Your task to perform on an android device: star an email in the gmail app Image 0: 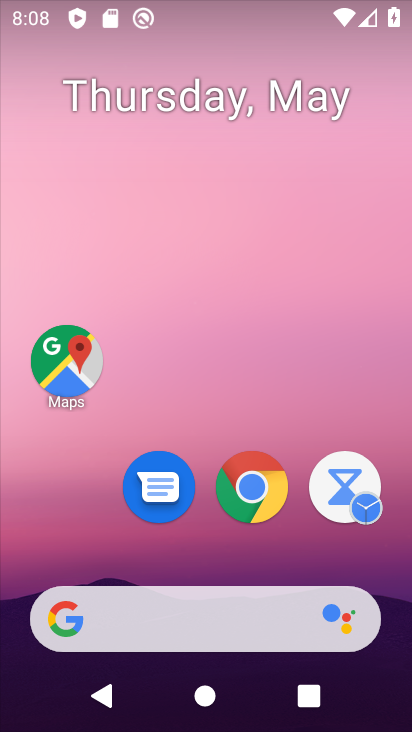
Step 0: drag from (393, 574) to (392, 220)
Your task to perform on an android device: star an email in the gmail app Image 1: 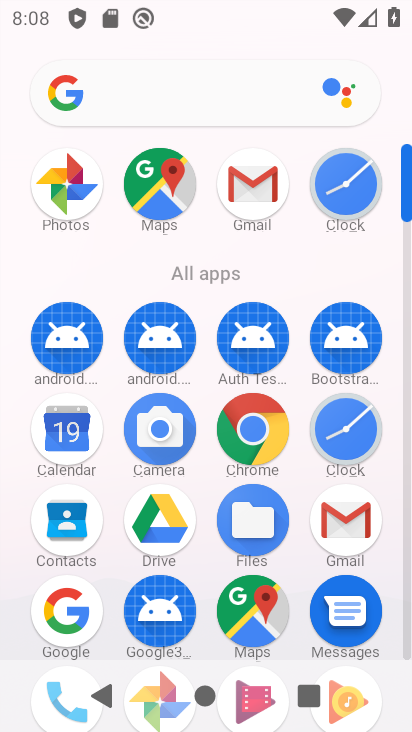
Step 1: click (352, 529)
Your task to perform on an android device: star an email in the gmail app Image 2: 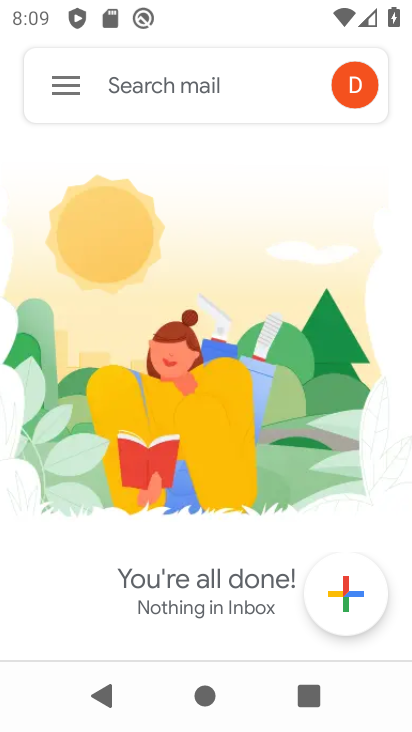
Step 2: click (69, 82)
Your task to perform on an android device: star an email in the gmail app Image 3: 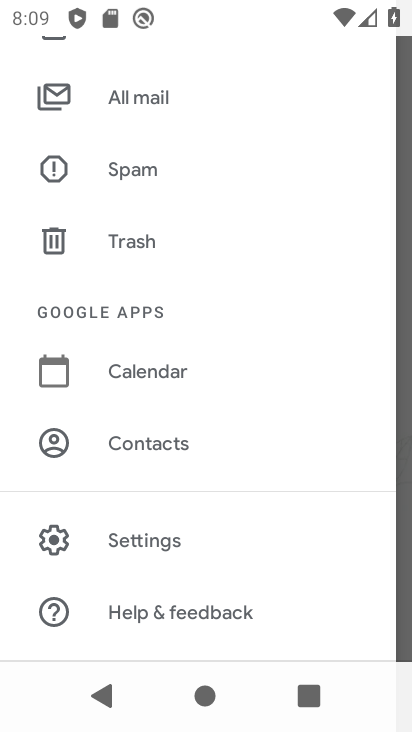
Step 3: drag from (322, 399) to (322, 495)
Your task to perform on an android device: star an email in the gmail app Image 4: 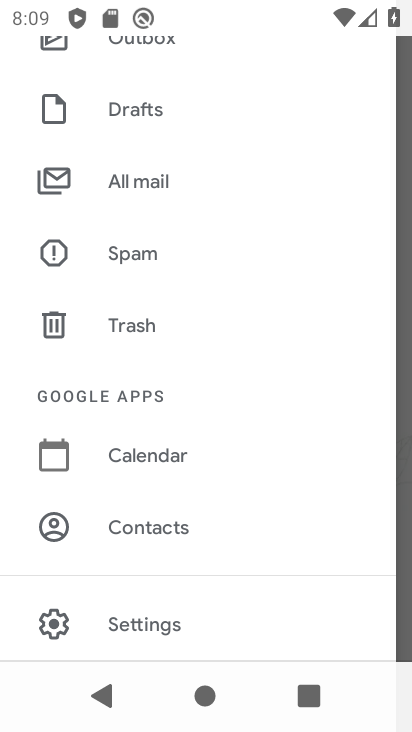
Step 4: drag from (311, 346) to (311, 462)
Your task to perform on an android device: star an email in the gmail app Image 5: 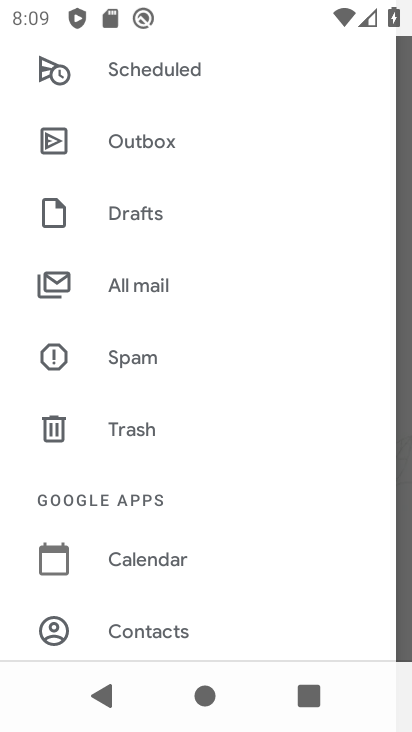
Step 5: drag from (323, 301) to (320, 424)
Your task to perform on an android device: star an email in the gmail app Image 6: 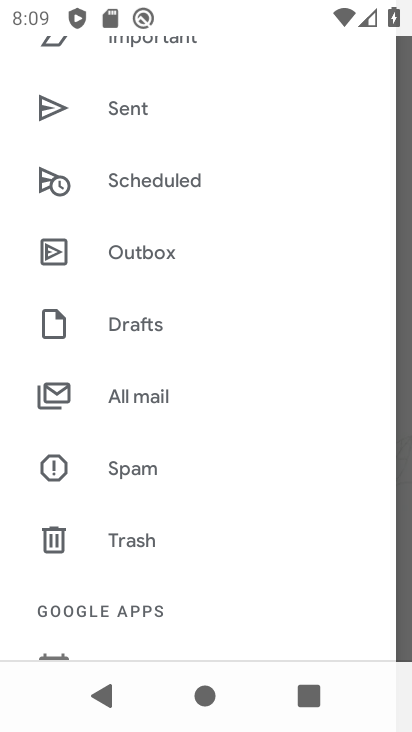
Step 6: drag from (307, 302) to (312, 431)
Your task to perform on an android device: star an email in the gmail app Image 7: 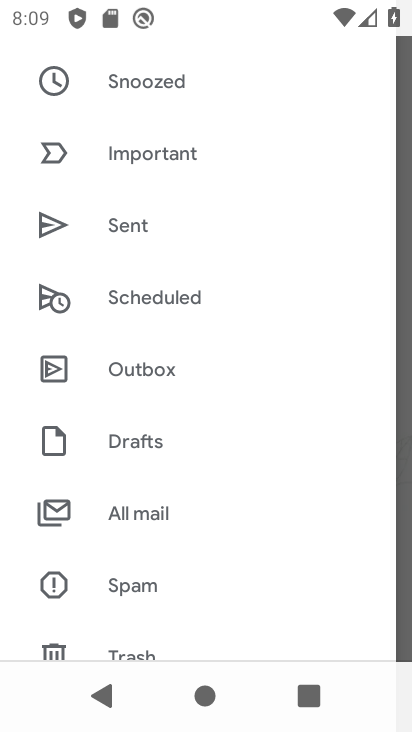
Step 7: drag from (309, 341) to (311, 409)
Your task to perform on an android device: star an email in the gmail app Image 8: 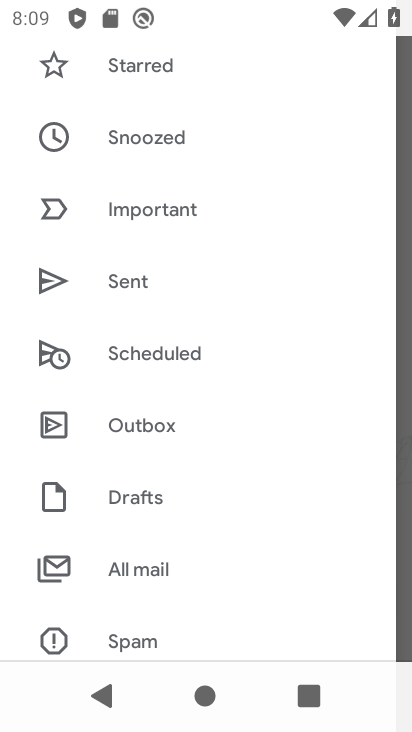
Step 8: drag from (309, 270) to (302, 418)
Your task to perform on an android device: star an email in the gmail app Image 9: 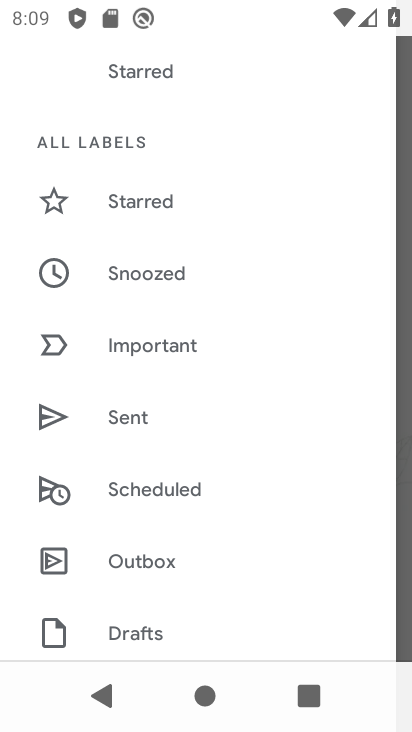
Step 9: drag from (284, 286) to (290, 384)
Your task to perform on an android device: star an email in the gmail app Image 10: 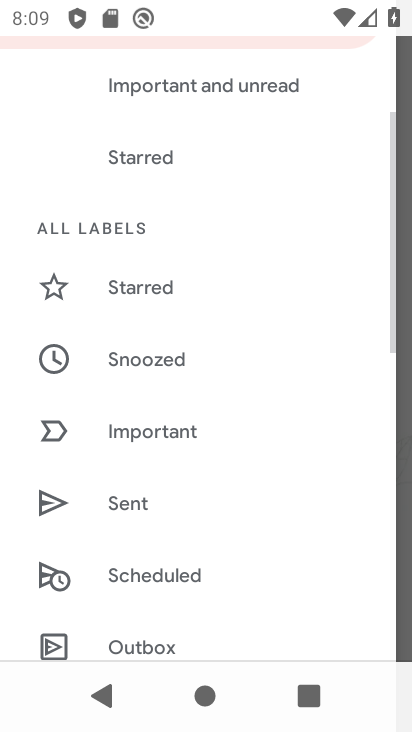
Step 10: drag from (287, 232) to (295, 331)
Your task to perform on an android device: star an email in the gmail app Image 11: 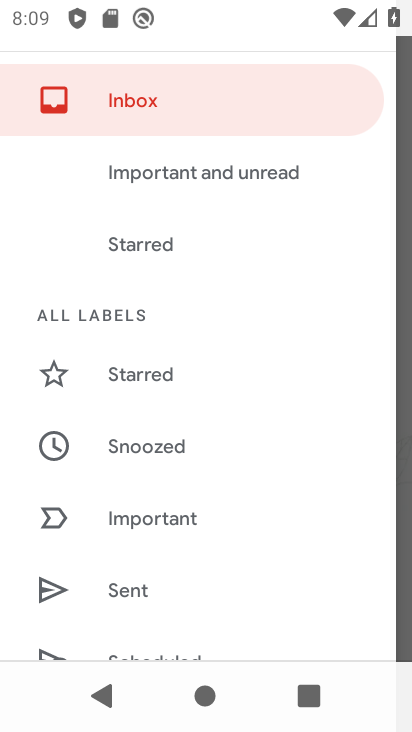
Step 11: drag from (290, 238) to (288, 336)
Your task to perform on an android device: star an email in the gmail app Image 12: 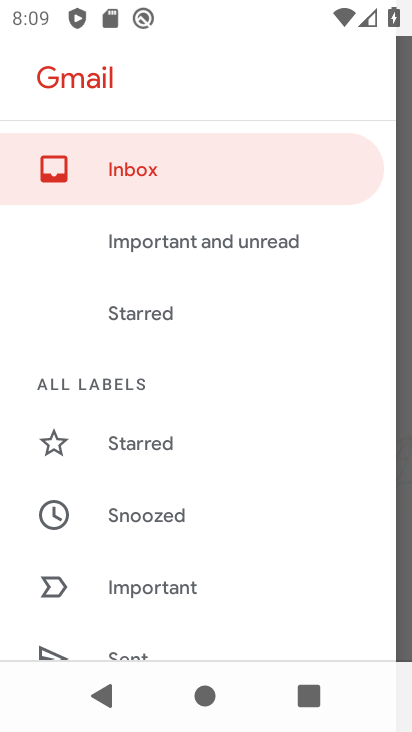
Step 12: drag from (295, 286) to (314, 440)
Your task to perform on an android device: star an email in the gmail app Image 13: 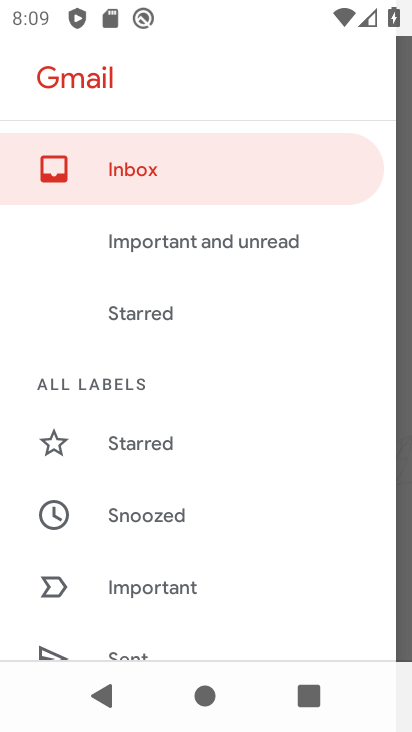
Step 13: click (244, 167)
Your task to perform on an android device: star an email in the gmail app Image 14: 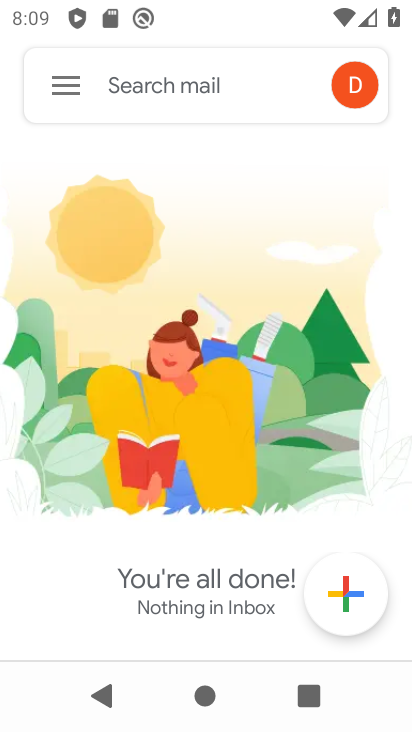
Step 14: task complete